Your task to perform on an android device: Search for vegetarian restaurants on Maps Image 0: 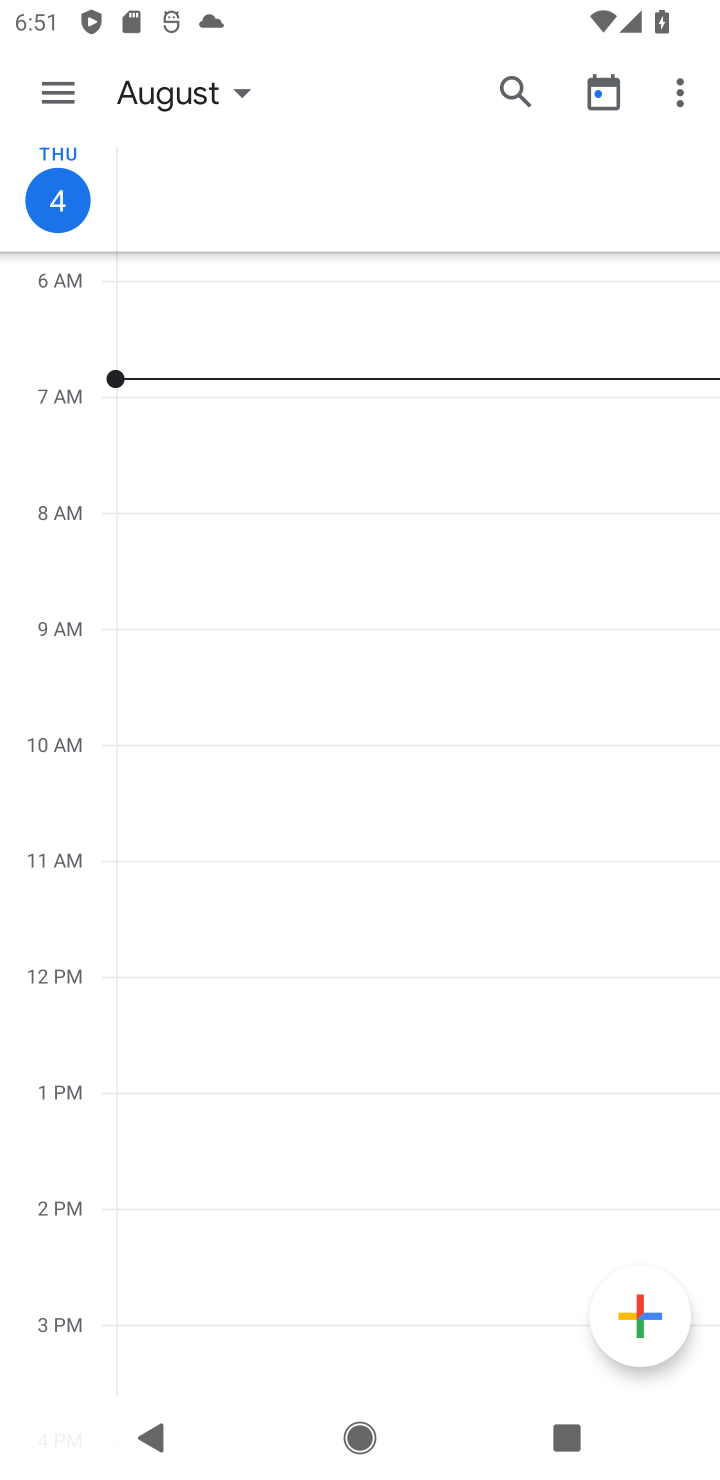
Step 0: press home button
Your task to perform on an android device: Search for vegetarian restaurants on Maps Image 1: 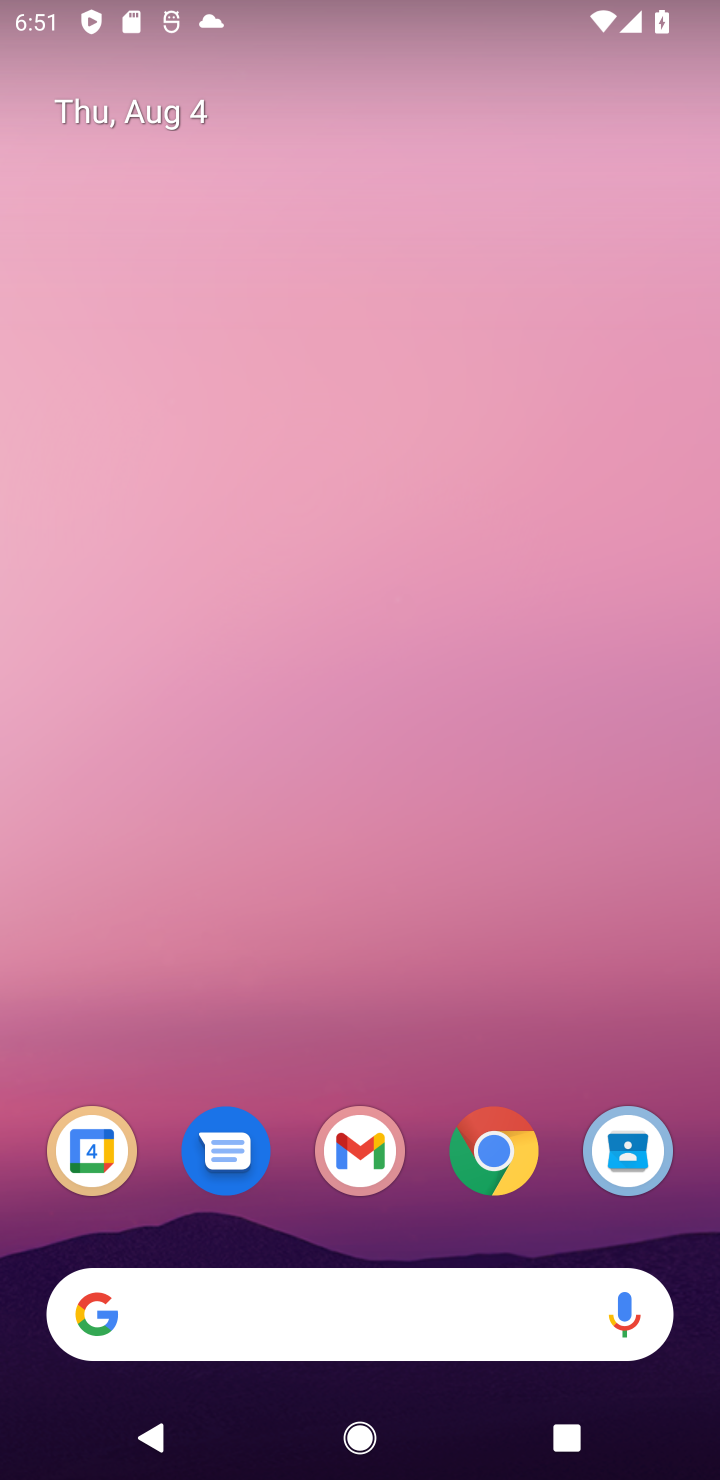
Step 1: drag from (303, 1206) to (369, 30)
Your task to perform on an android device: Search for vegetarian restaurants on Maps Image 2: 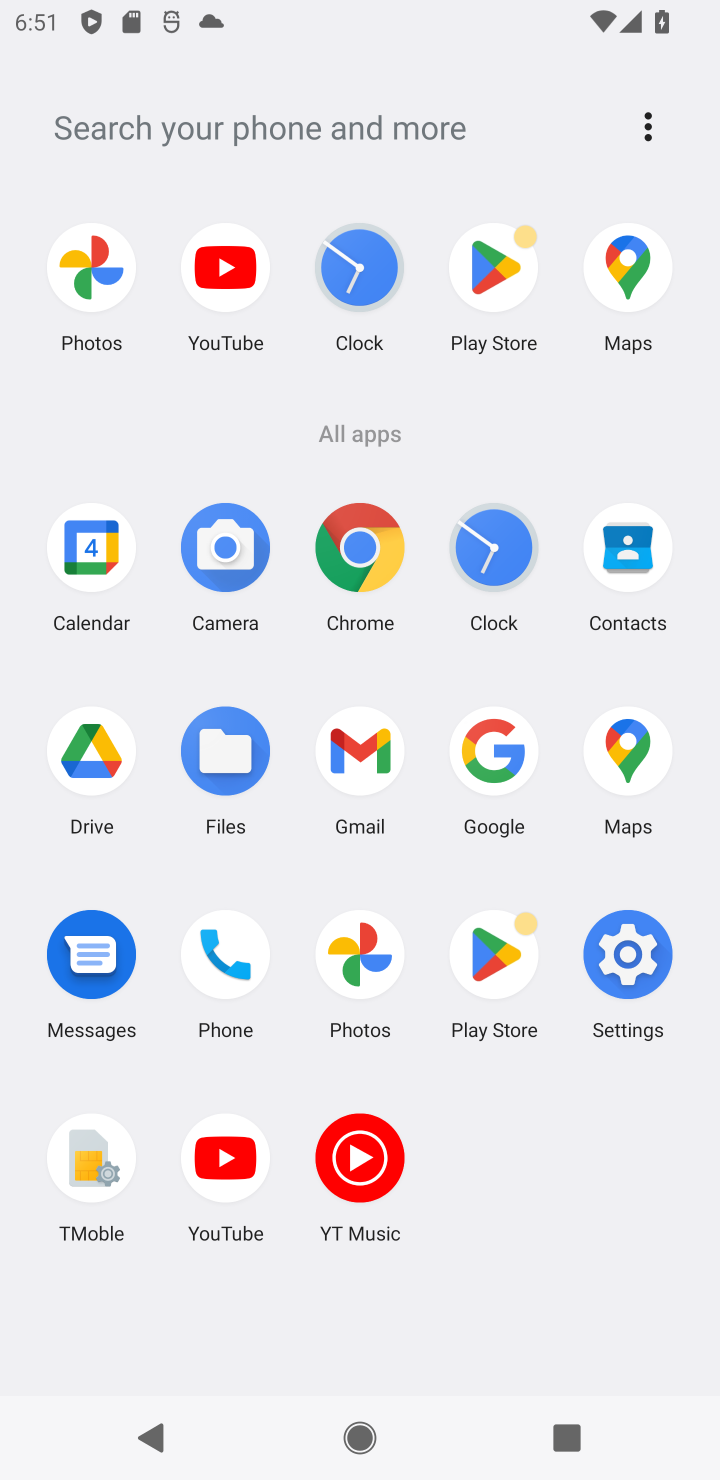
Step 2: click (632, 762)
Your task to perform on an android device: Search for vegetarian restaurants on Maps Image 3: 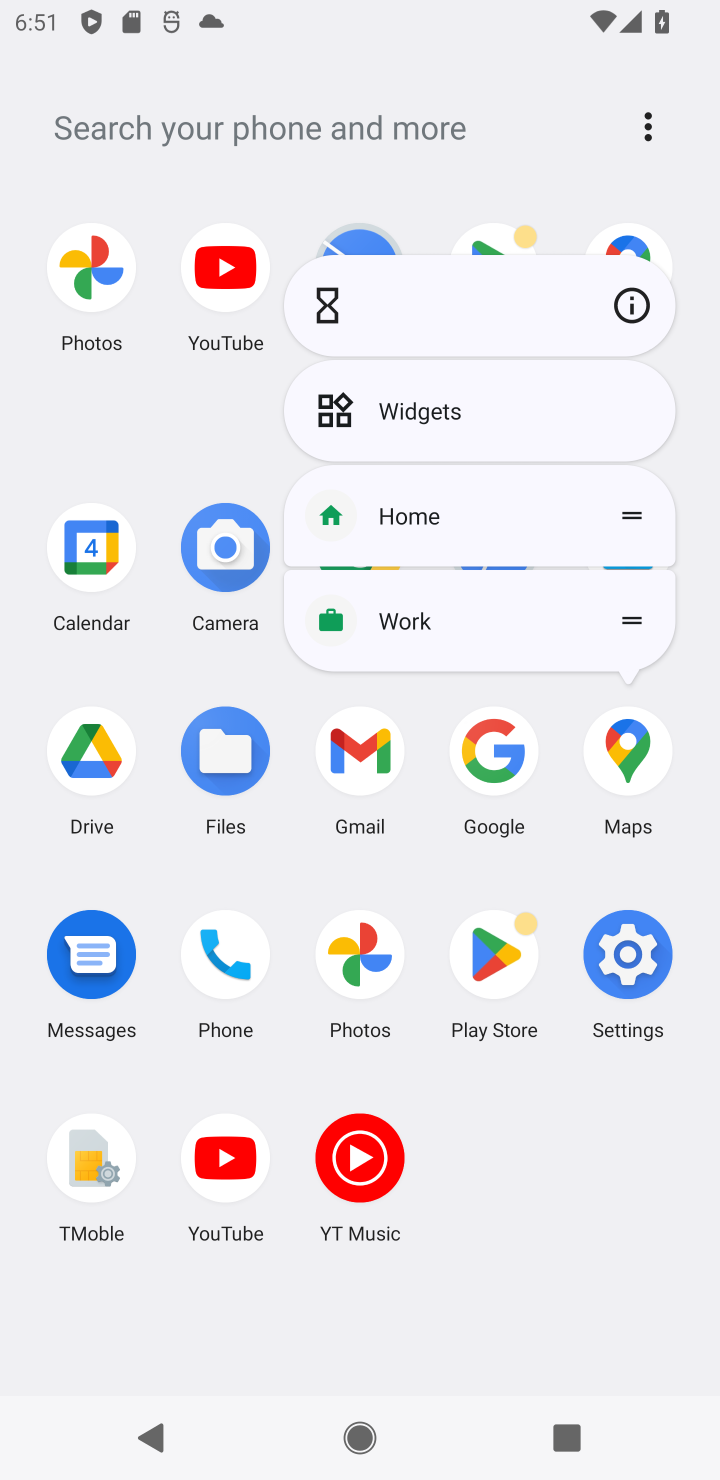
Step 3: click (615, 765)
Your task to perform on an android device: Search for vegetarian restaurants on Maps Image 4: 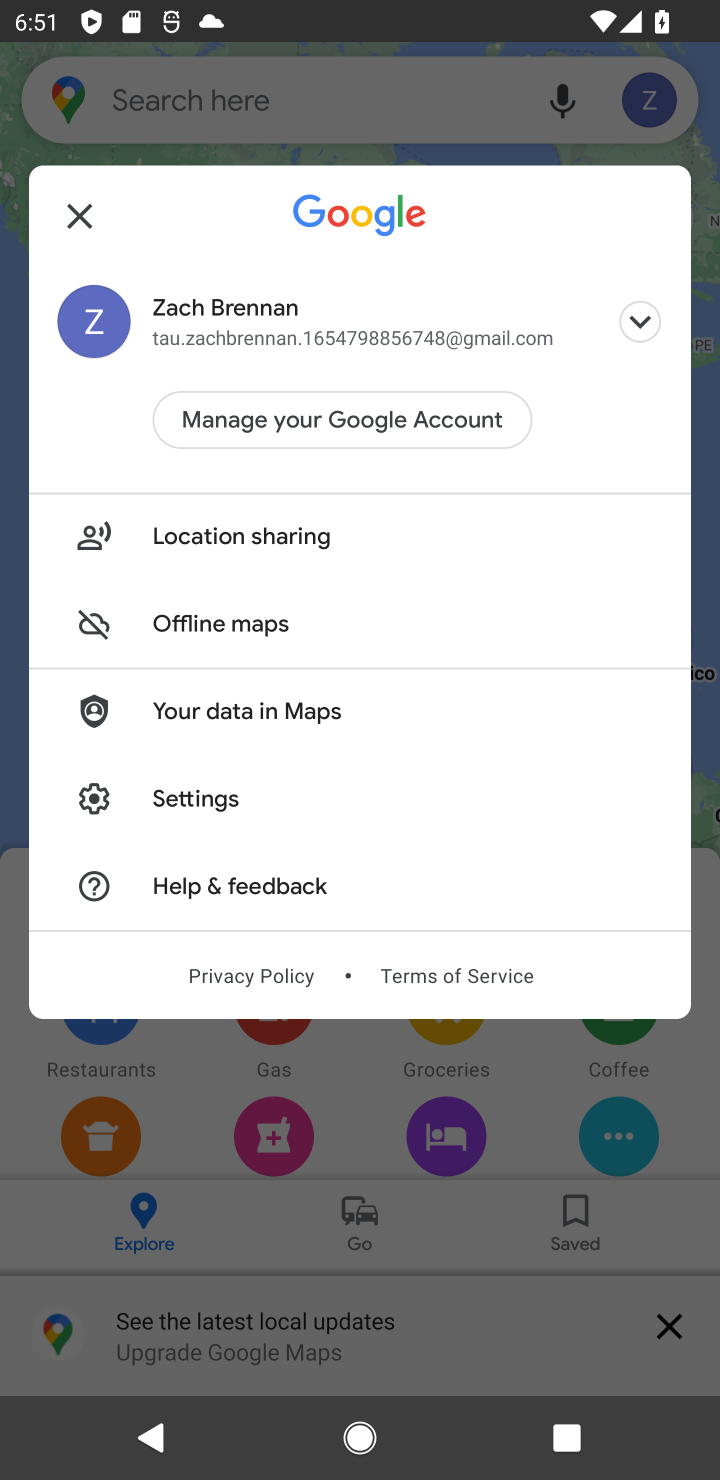
Step 4: click (284, 102)
Your task to perform on an android device: Search for vegetarian restaurants on Maps Image 5: 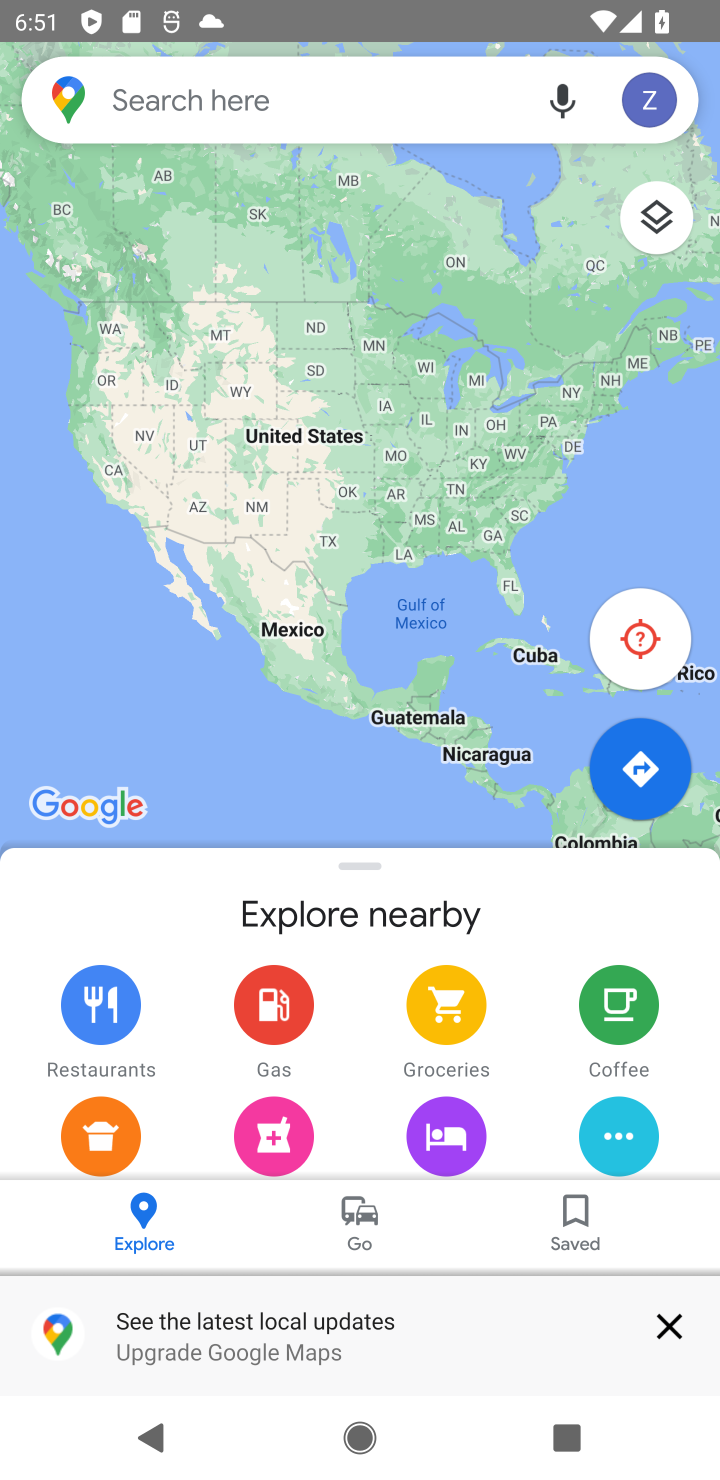
Step 5: click (290, 114)
Your task to perform on an android device: Search for vegetarian restaurants on Maps Image 6: 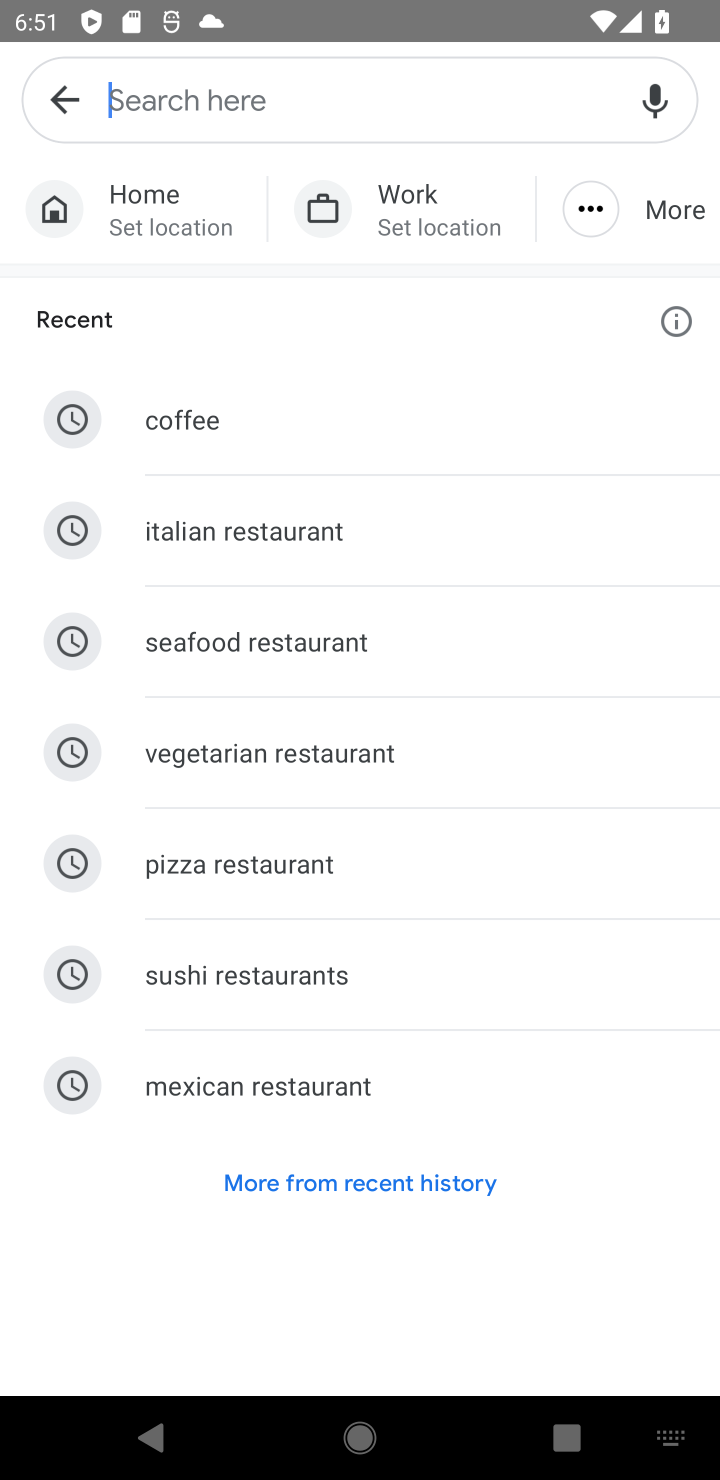
Step 6: type "vegetarian restaurants"
Your task to perform on an android device: Search for vegetarian restaurants on Maps Image 7: 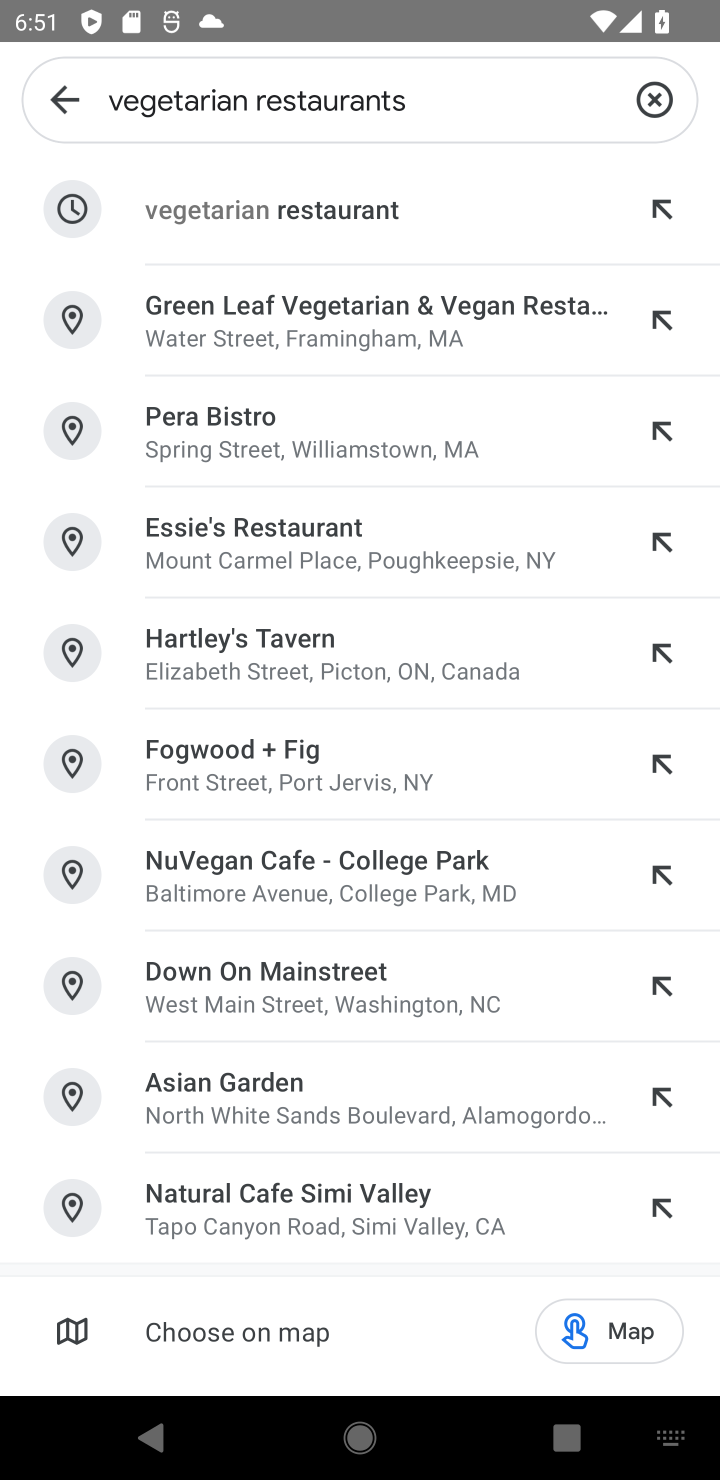
Step 7: click (319, 219)
Your task to perform on an android device: Search for vegetarian restaurants on Maps Image 8: 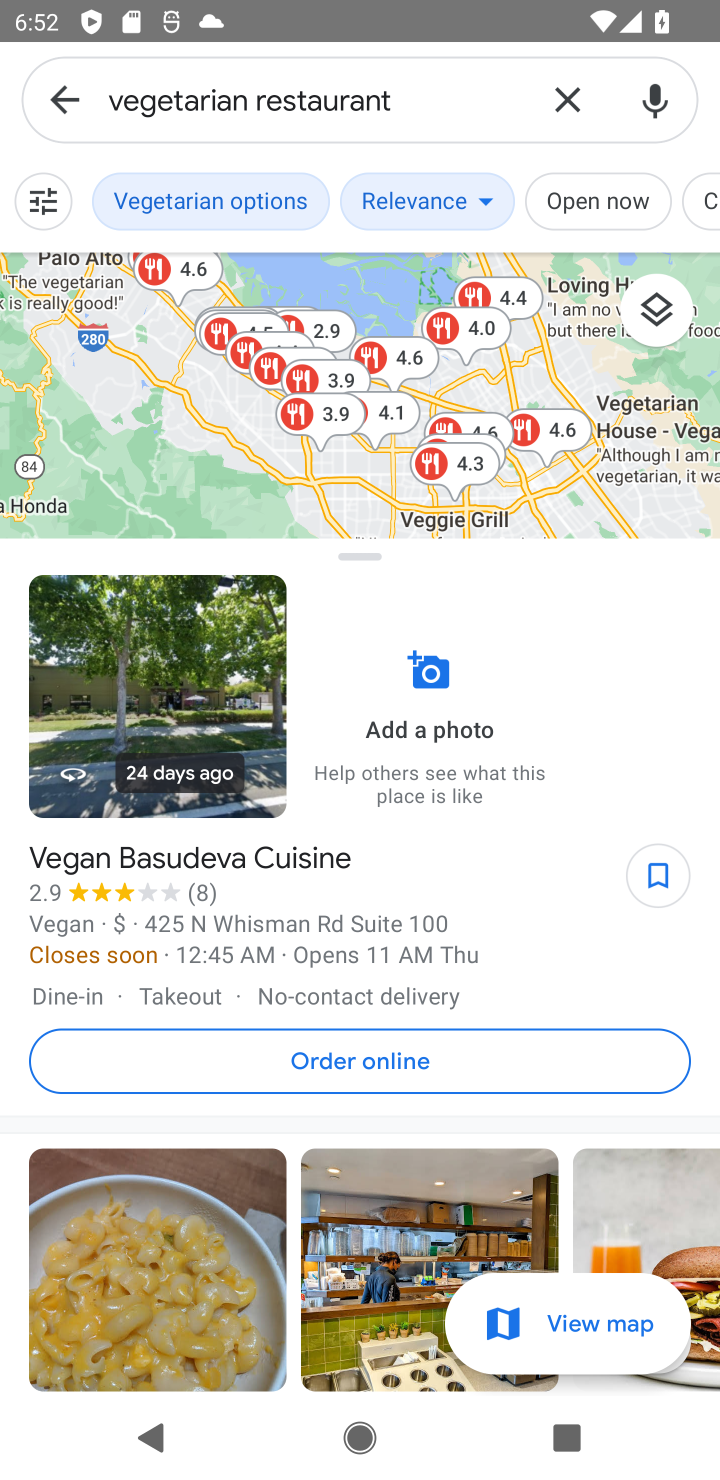
Step 8: task complete